Your task to perform on an android device: Go to accessibility settings Image 0: 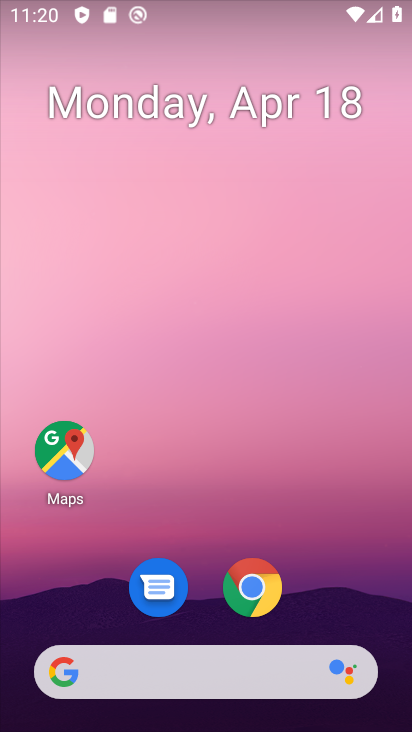
Step 0: drag from (334, 619) to (396, 14)
Your task to perform on an android device: Go to accessibility settings Image 1: 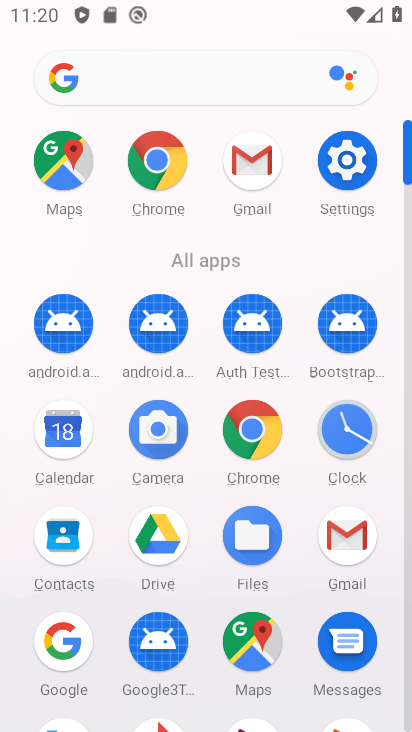
Step 1: click (348, 165)
Your task to perform on an android device: Go to accessibility settings Image 2: 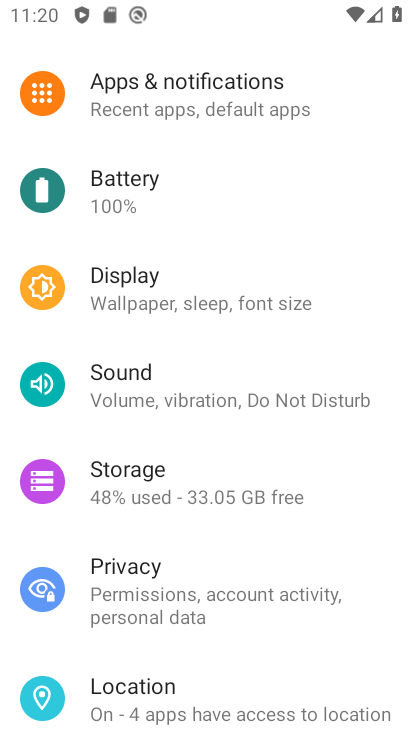
Step 2: drag from (362, 602) to (381, 170)
Your task to perform on an android device: Go to accessibility settings Image 3: 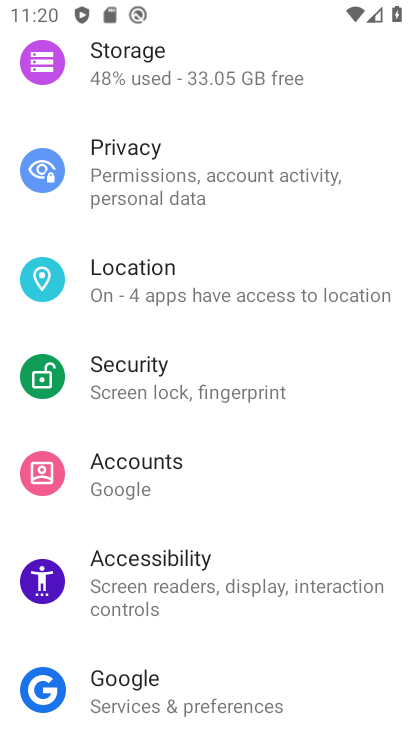
Step 3: click (132, 589)
Your task to perform on an android device: Go to accessibility settings Image 4: 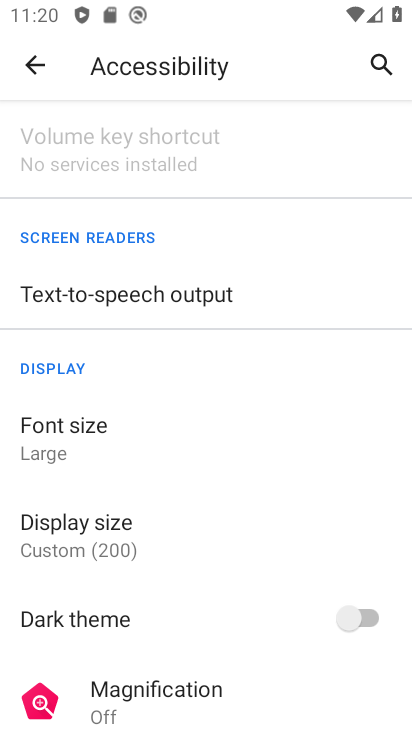
Step 4: task complete